Your task to perform on an android device: Open display settings Image 0: 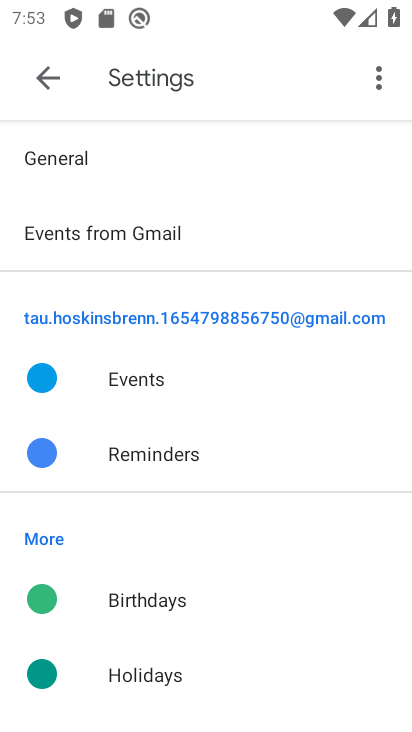
Step 0: click (29, 77)
Your task to perform on an android device: Open display settings Image 1: 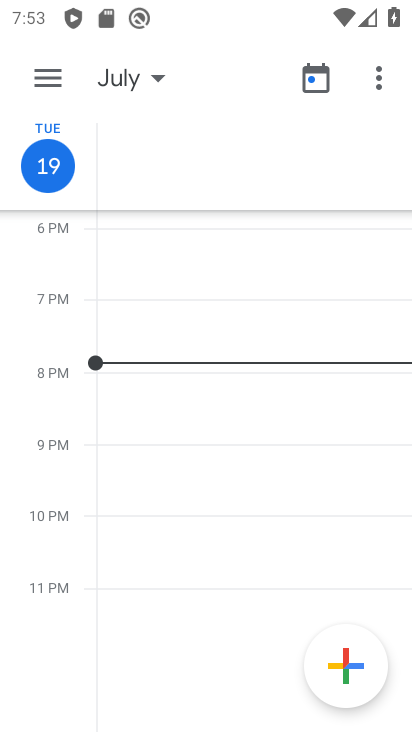
Step 1: press back button
Your task to perform on an android device: Open display settings Image 2: 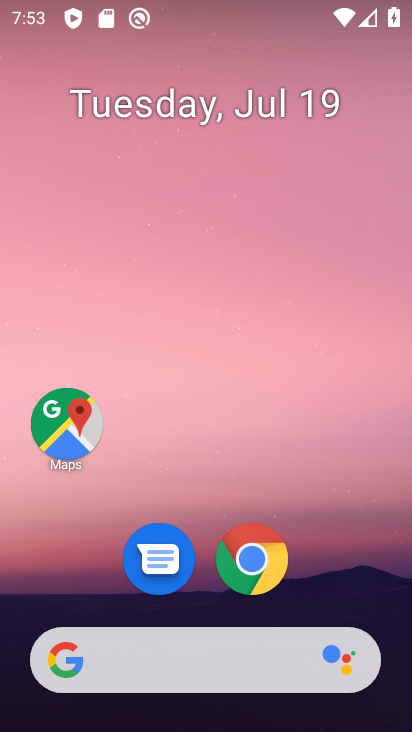
Step 2: drag from (102, 567) to (208, 16)
Your task to perform on an android device: Open display settings Image 3: 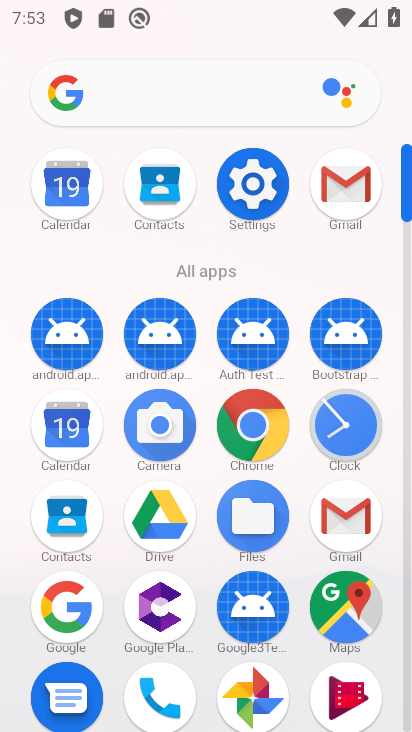
Step 3: click (254, 183)
Your task to perform on an android device: Open display settings Image 4: 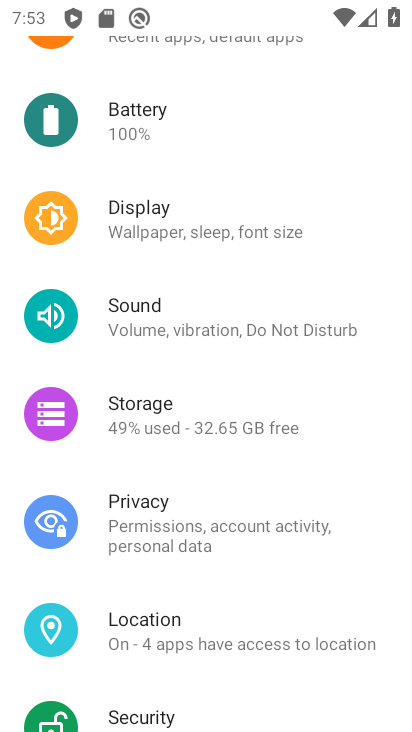
Step 4: click (210, 213)
Your task to perform on an android device: Open display settings Image 5: 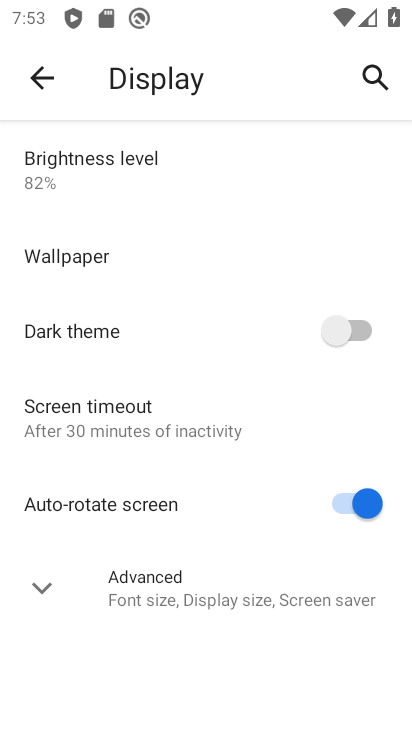
Step 5: task complete